Your task to perform on an android device: Open privacy settings Image 0: 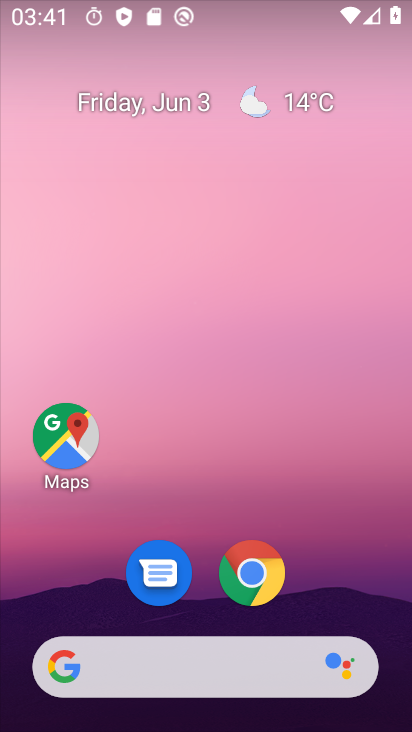
Step 0: drag from (245, 667) to (257, 76)
Your task to perform on an android device: Open privacy settings Image 1: 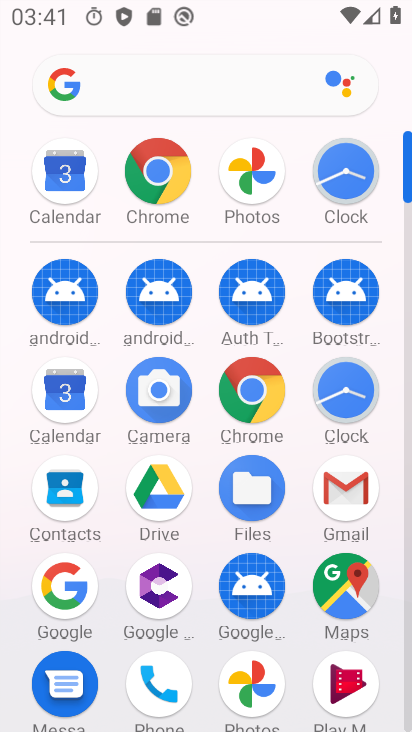
Step 1: drag from (219, 699) to (227, 361)
Your task to perform on an android device: Open privacy settings Image 2: 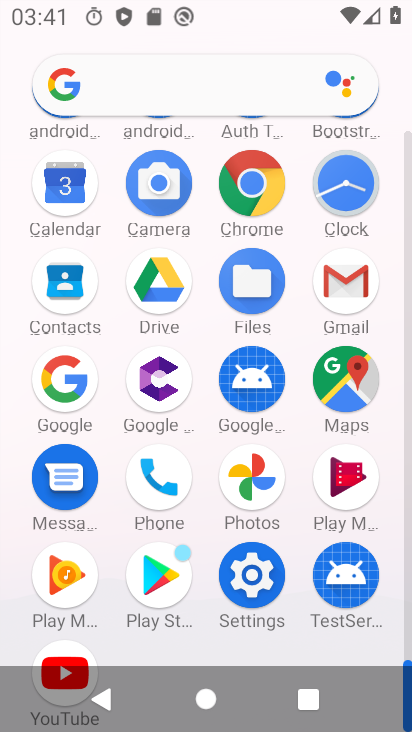
Step 2: click (267, 560)
Your task to perform on an android device: Open privacy settings Image 3: 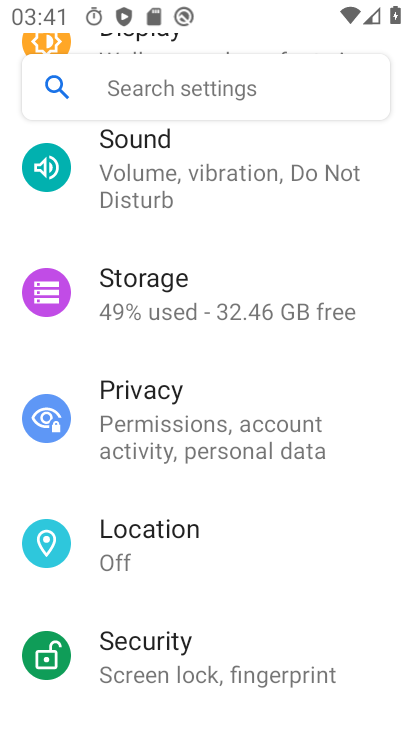
Step 3: click (204, 418)
Your task to perform on an android device: Open privacy settings Image 4: 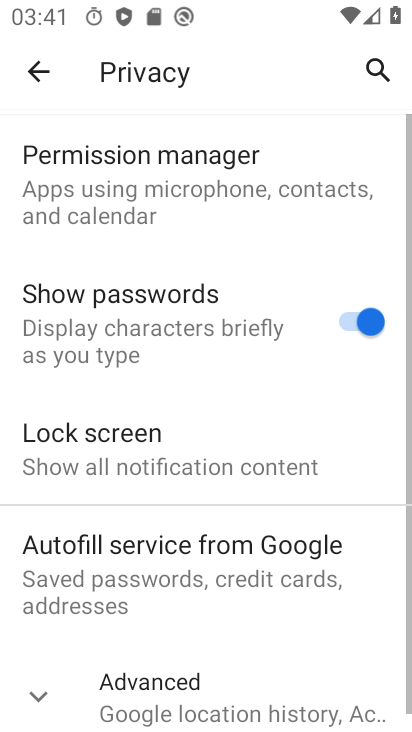
Step 4: task complete